Your task to perform on an android device: turn off airplane mode Image 0: 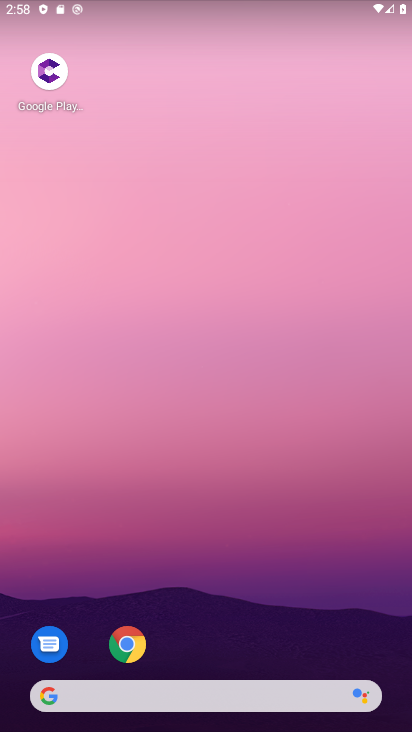
Step 0: drag from (374, 640) to (322, 0)
Your task to perform on an android device: turn off airplane mode Image 1: 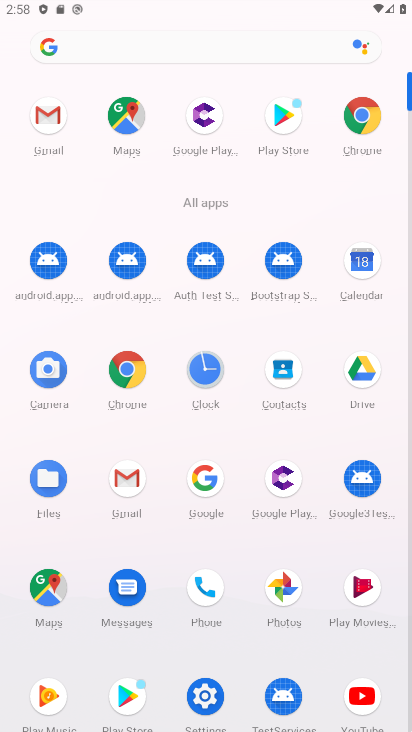
Step 1: click (203, 700)
Your task to perform on an android device: turn off airplane mode Image 2: 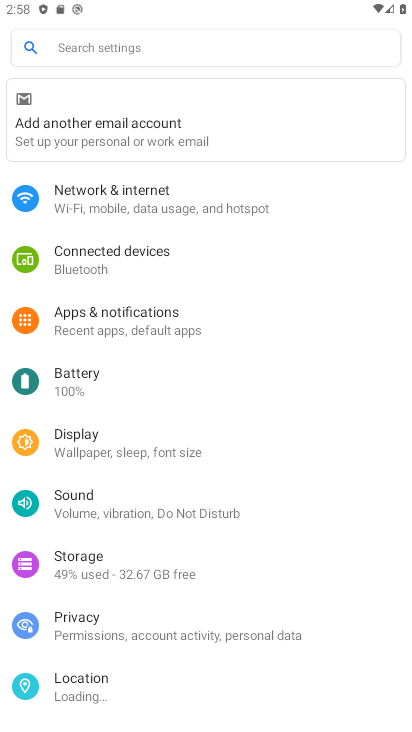
Step 2: click (127, 190)
Your task to perform on an android device: turn off airplane mode Image 3: 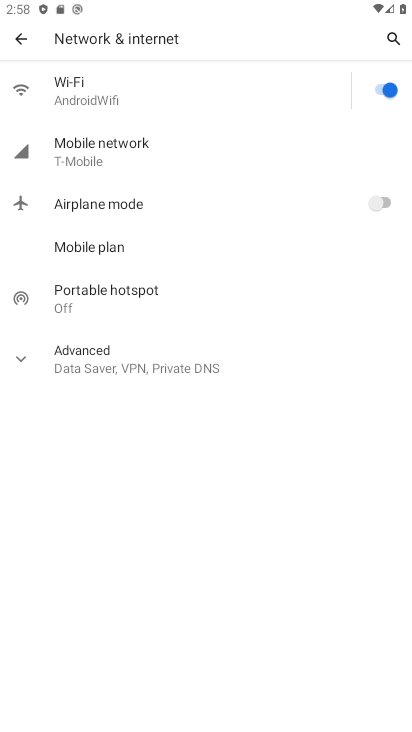
Step 3: task complete